Your task to perform on an android device: Show me productivity apps on the Play Store Image 0: 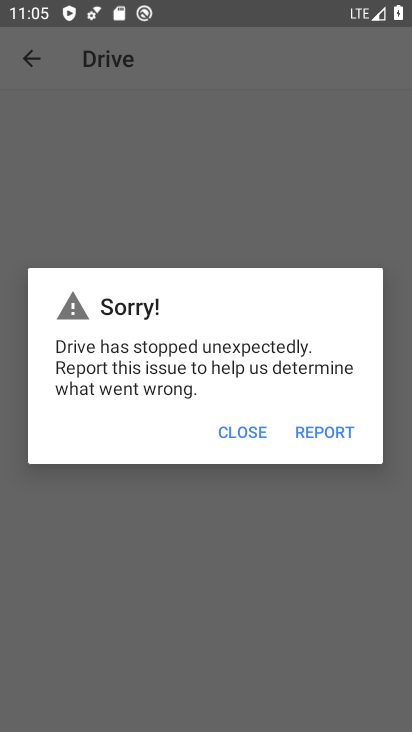
Step 0: press home button
Your task to perform on an android device: Show me productivity apps on the Play Store Image 1: 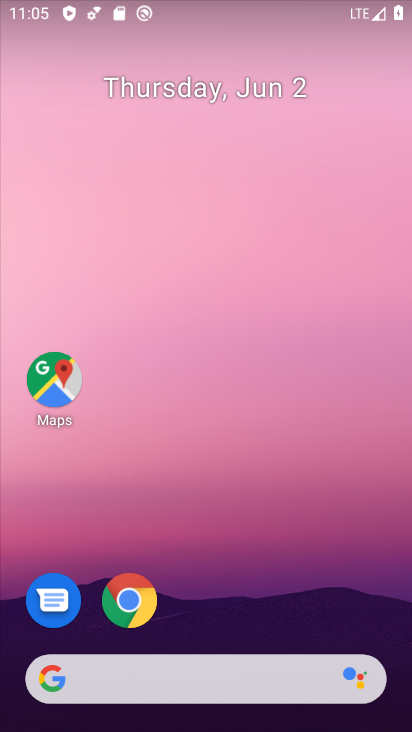
Step 1: drag from (296, 589) to (310, 215)
Your task to perform on an android device: Show me productivity apps on the Play Store Image 2: 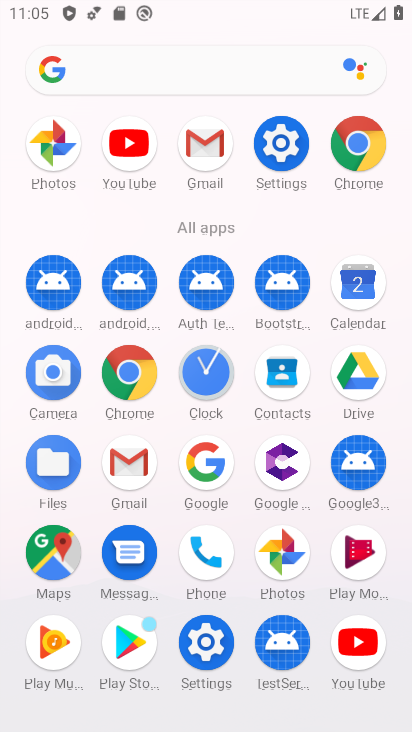
Step 2: click (125, 647)
Your task to perform on an android device: Show me productivity apps on the Play Store Image 3: 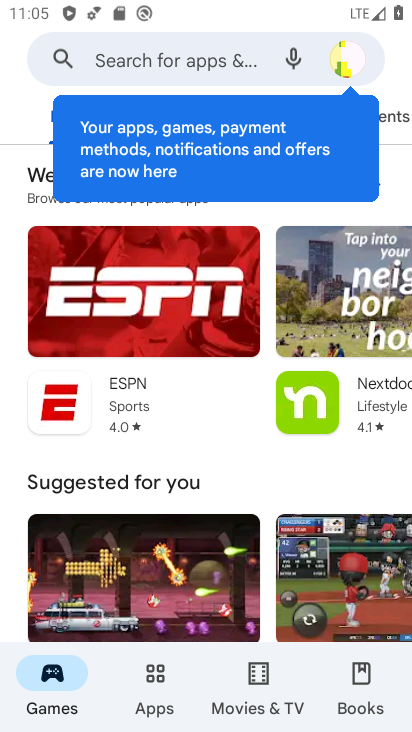
Step 3: click (164, 688)
Your task to perform on an android device: Show me productivity apps on the Play Store Image 4: 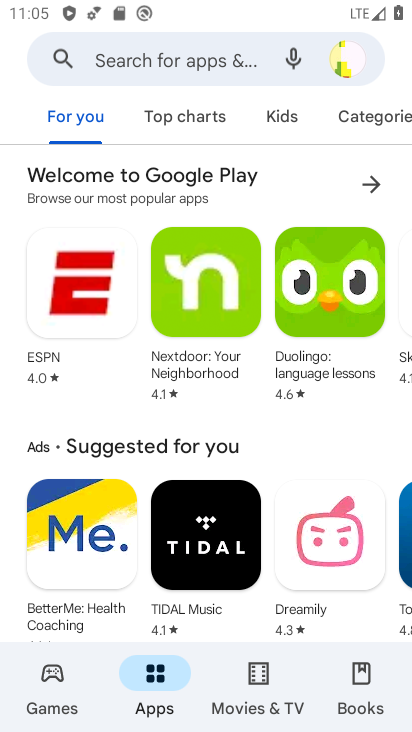
Step 4: click (381, 123)
Your task to perform on an android device: Show me productivity apps on the Play Store Image 5: 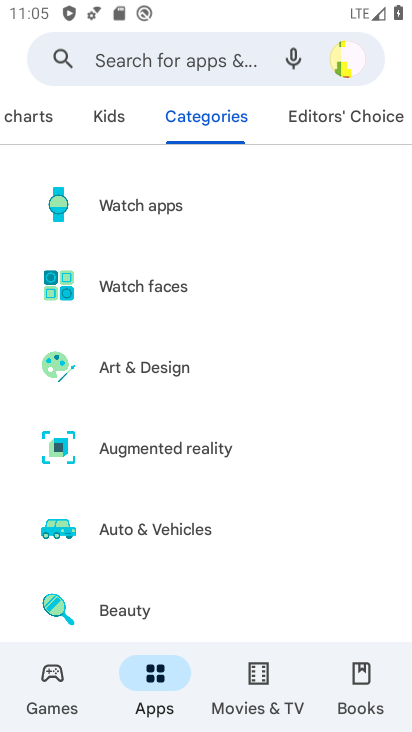
Step 5: drag from (217, 588) to (199, 33)
Your task to perform on an android device: Show me productivity apps on the Play Store Image 6: 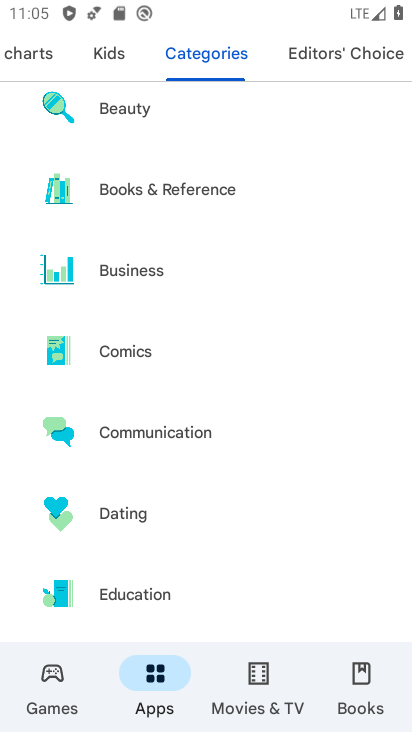
Step 6: drag from (165, 620) to (154, 187)
Your task to perform on an android device: Show me productivity apps on the Play Store Image 7: 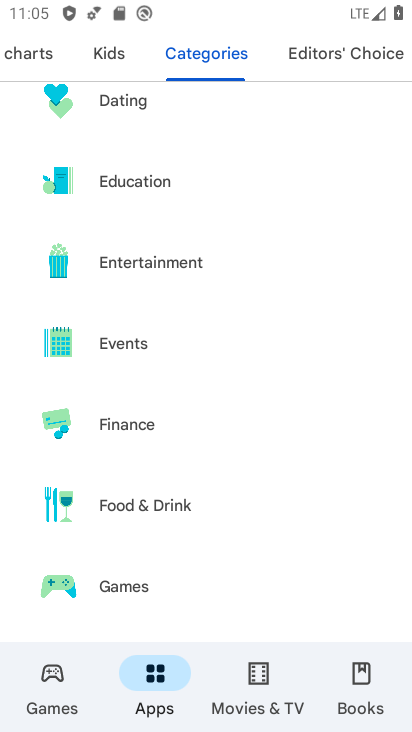
Step 7: drag from (165, 607) to (172, 127)
Your task to perform on an android device: Show me productivity apps on the Play Store Image 8: 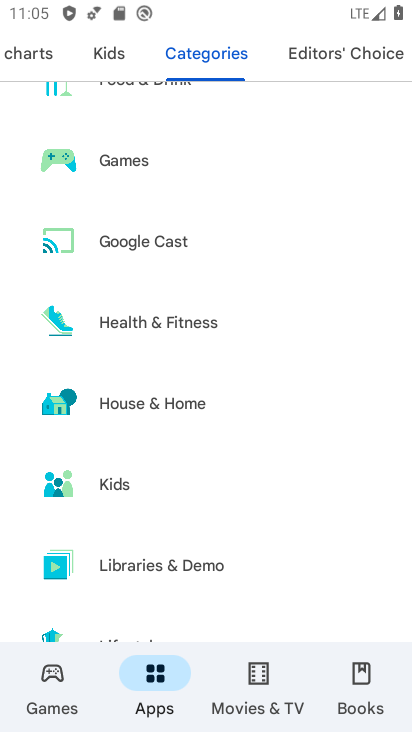
Step 8: drag from (143, 615) to (182, 117)
Your task to perform on an android device: Show me productivity apps on the Play Store Image 9: 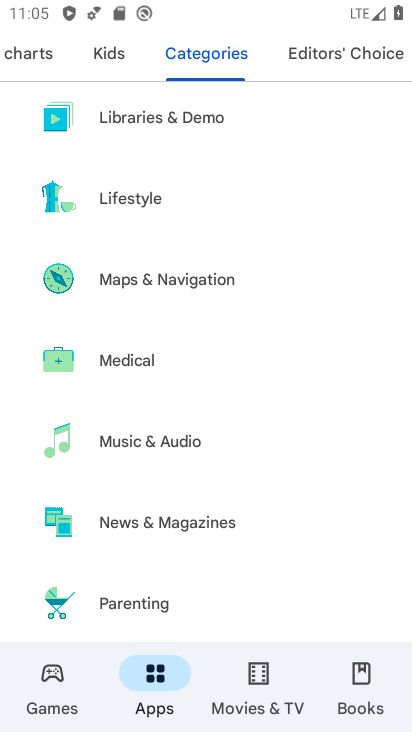
Step 9: drag from (170, 551) to (173, 156)
Your task to perform on an android device: Show me productivity apps on the Play Store Image 10: 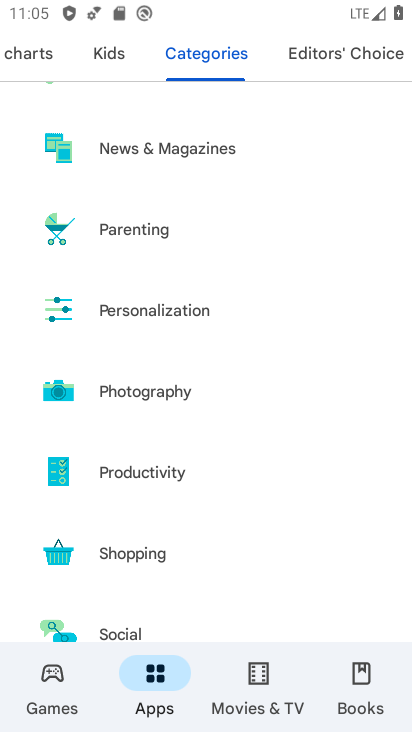
Step 10: click (158, 479)
Your task to perform on an android device: Show me productivity apps on the Play Store Image 11: 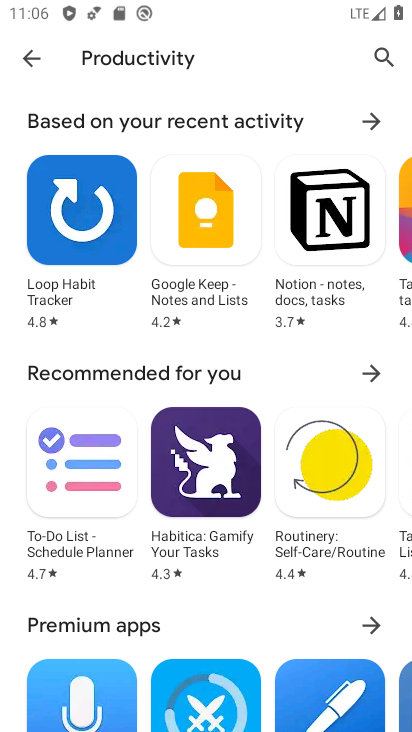
Step 11: task complete